Your task to perform on an android device: Go to CNN.com Image 0: 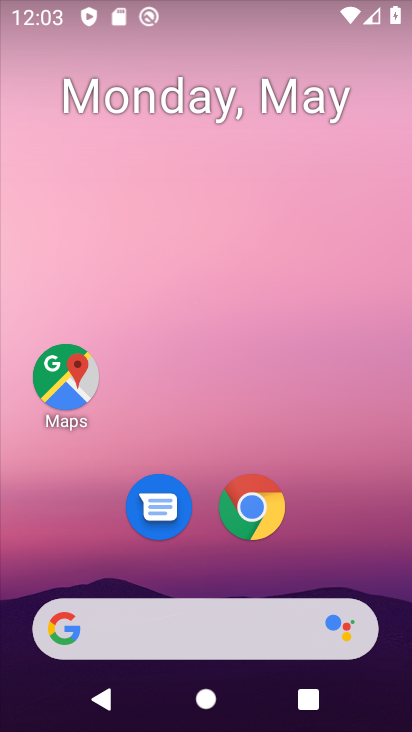
Step 0: click (248, 508)
Your task to perform on an android device: Go to CNN.com Image 1: 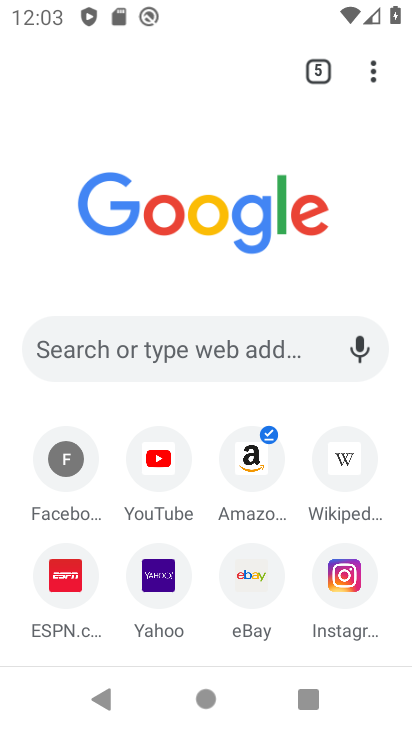
Step 1: click (222, 356)
Your task to perform on an android device: Go to CNN.com Image 2: 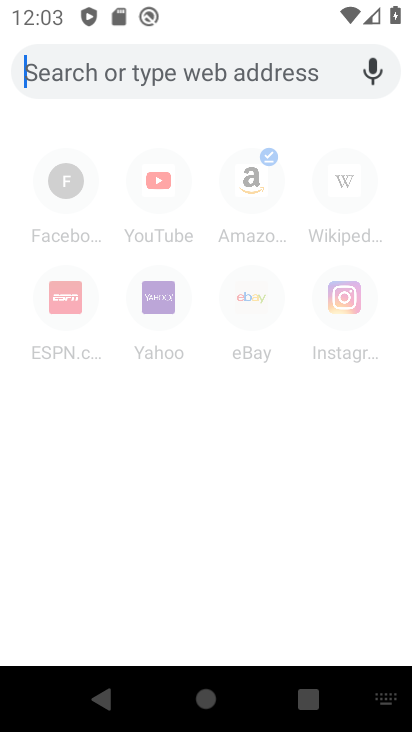
Step 2: type "CNN.com"
Your task to perform on an android device: Go to CNN.com Image 3: 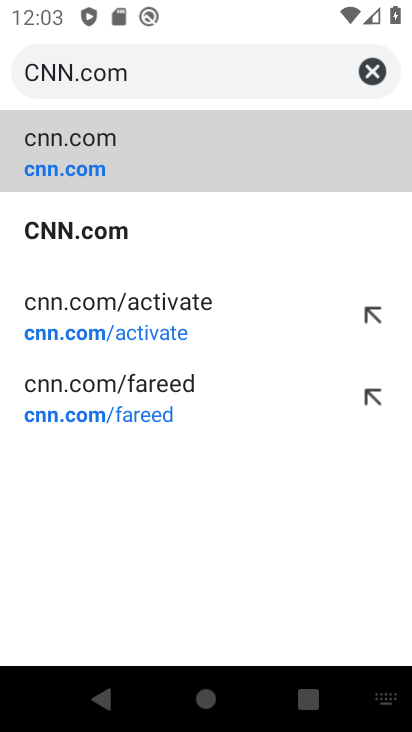
Step 3: click (85, 158)
Your task to perform on an android device: Go to CNN.com Image 4: 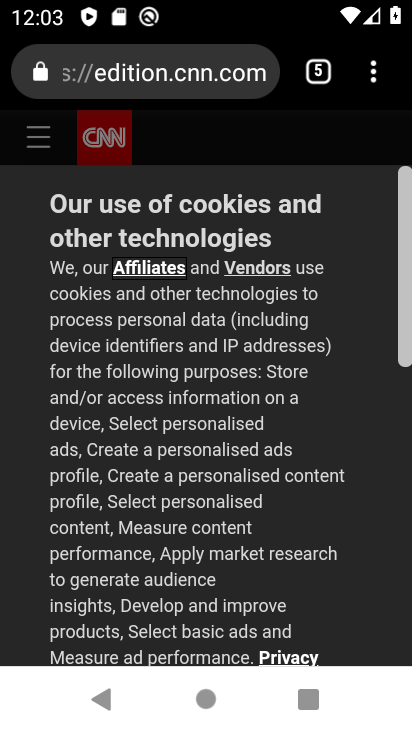
Step 4: task complete